Your task to perform on an android device: turn vacation reply on in the gmail app Image 0: 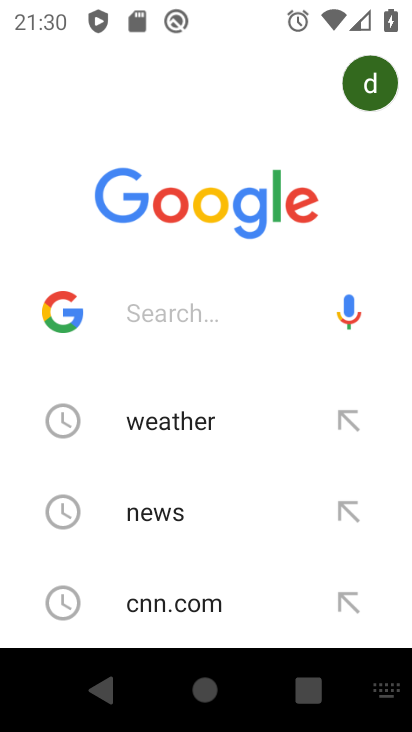
Step 0: press home button
Your task to perform on an android device: turn vacation reply on in the gmail app Image 1: 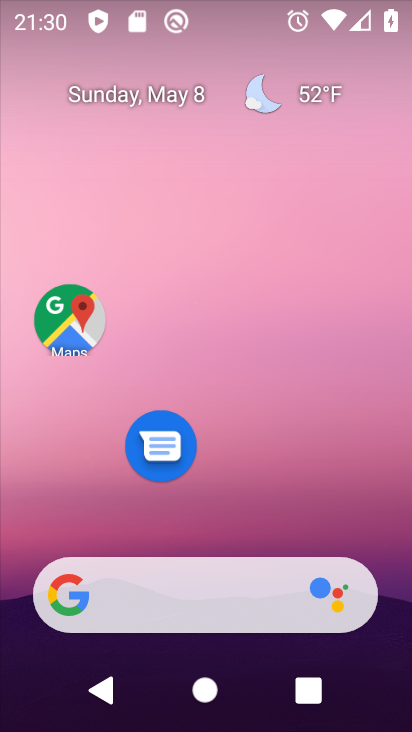
Step 1: drag from (311, 522) to (314, 127)
Your task to perform on an android device: turn vacation reply on in the gmail app Image 2: 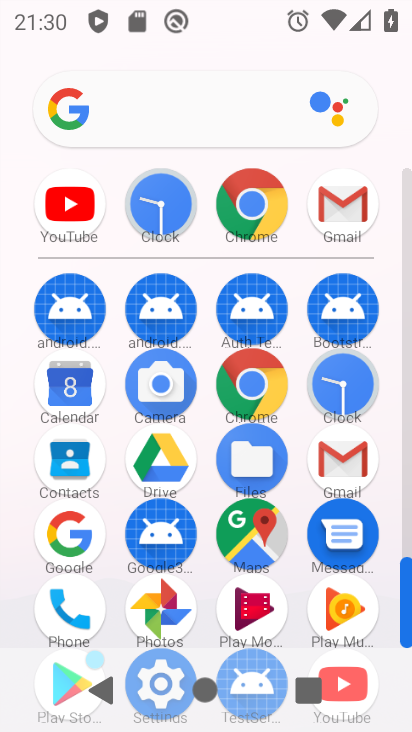
Step 2: drag from (408, 580) to (399, 722)
Your task to perform on an android device: turn vacation reply on in the gmail app Image 3: 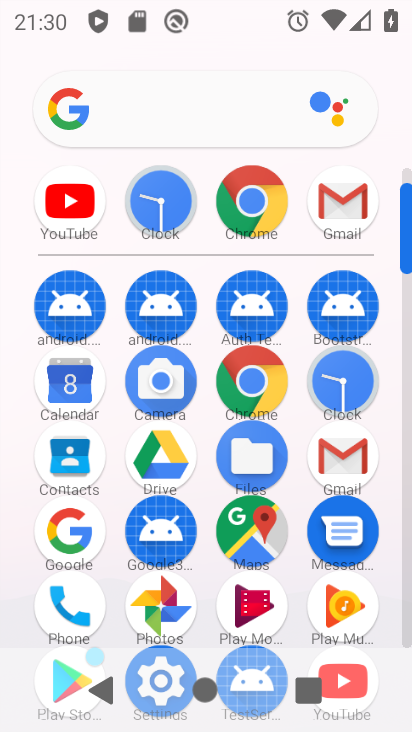
Step 3: click (408, 641)
Your task to perform on an android device: turn vacation reply on in the gmail app Image 4: 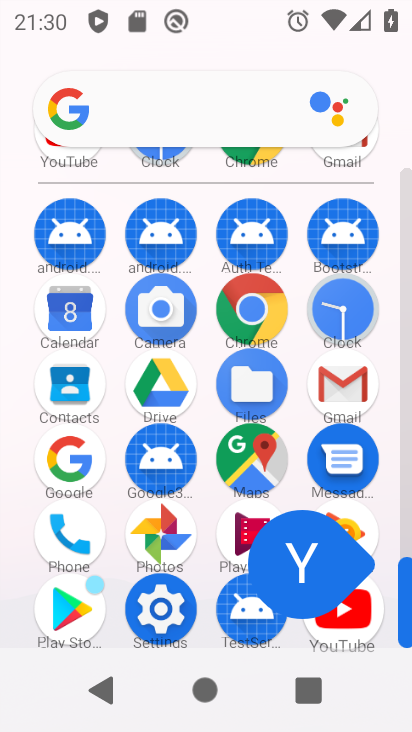
Step 4: click (408, 641)
Your task to perform on an android device: turn vacation reply on in the gmail app Image 5: 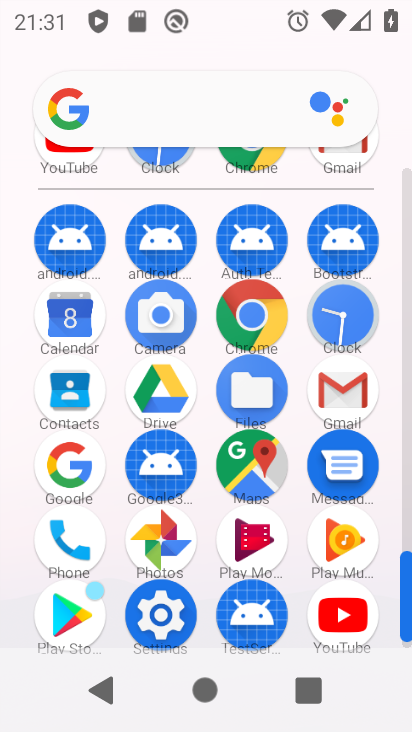
Step 5: click (327, 382)
Your task to perform on an android device: turn vacation reply on in the gmail app Image 6: 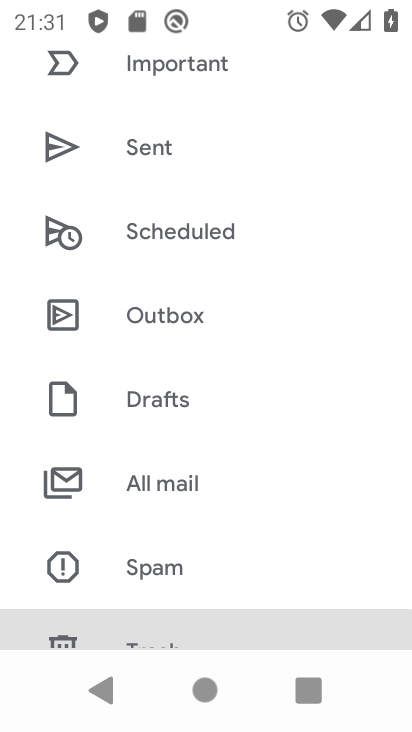
Step 6: drag from (187, 581) to (225, 171)
Your task to perform on an android device: turn vacation reply on in the gmail app Image 7: 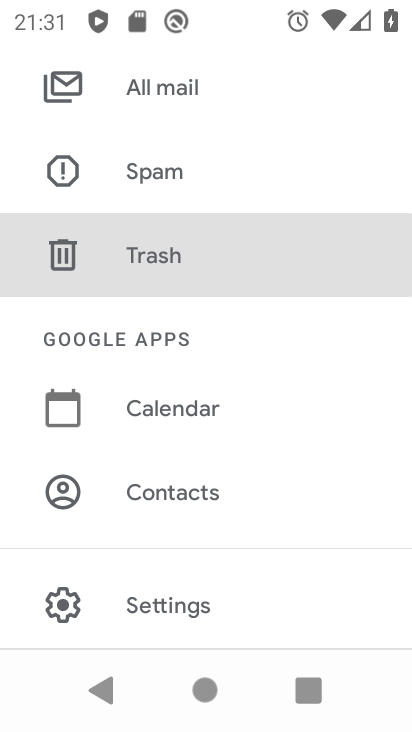
Step 7: click (214, 593)
Your task to perform on an android device: turn vacation reply on in the gmail app Image 8: 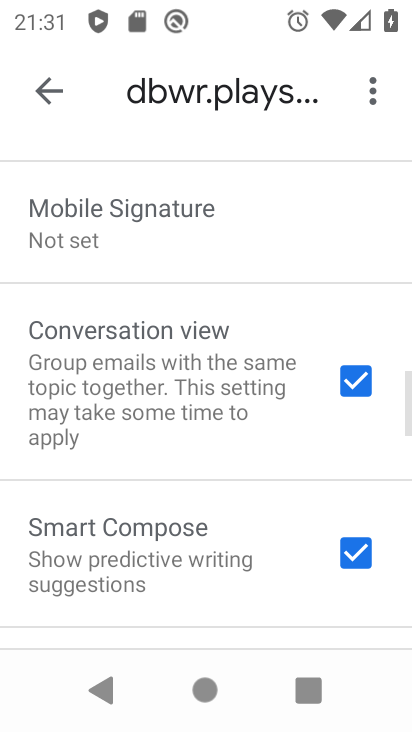
Step 8: drag from (225, 582) to (228, 217)
Your task to perform on an android device: turn vacation reply on in the gmail app Image 9: 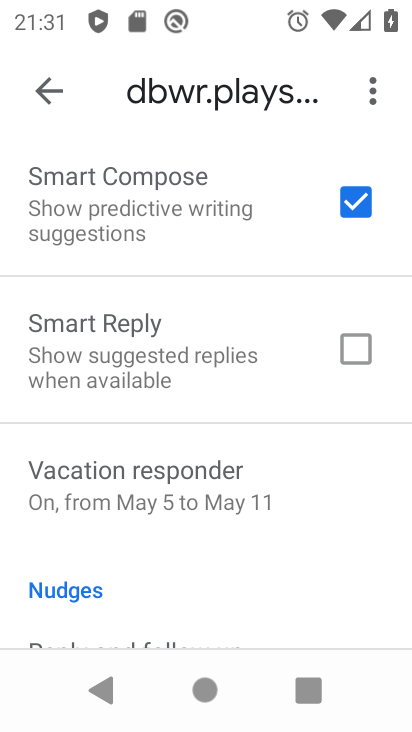
Step 9: click (182, 502)
Your task to perform on an android device: turn vacation reply on in the gmail app Image 10: 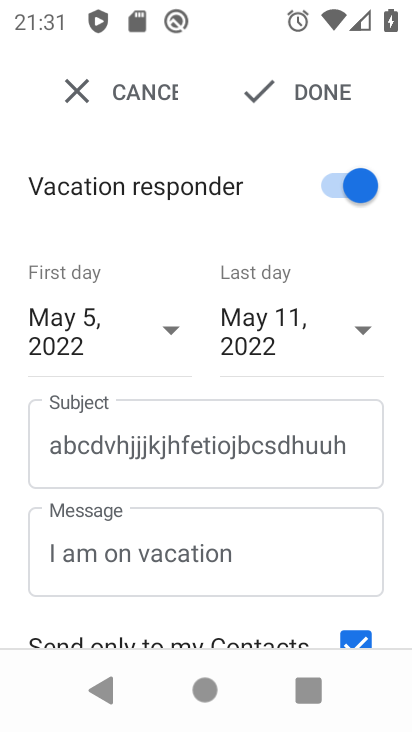
Step 10: click (160, 335)
Your task to perform on an android device: turn vacation reply on in the gmail app Image 11: 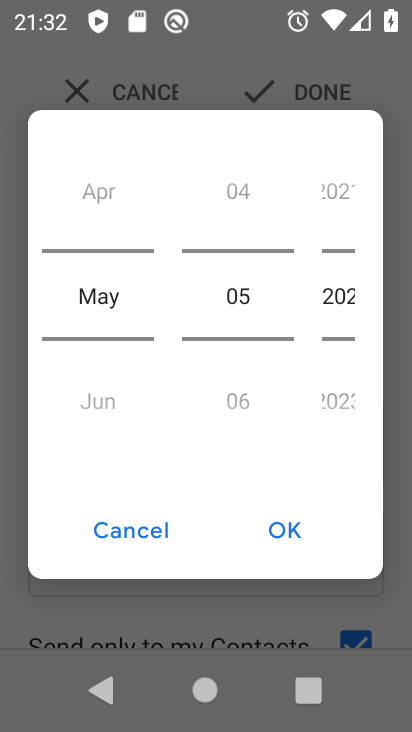
Step 11: drag from (242, 416) to (240, 8)
Your task to perform on an android device: turn vacation reply on in the gmail app Image 12: 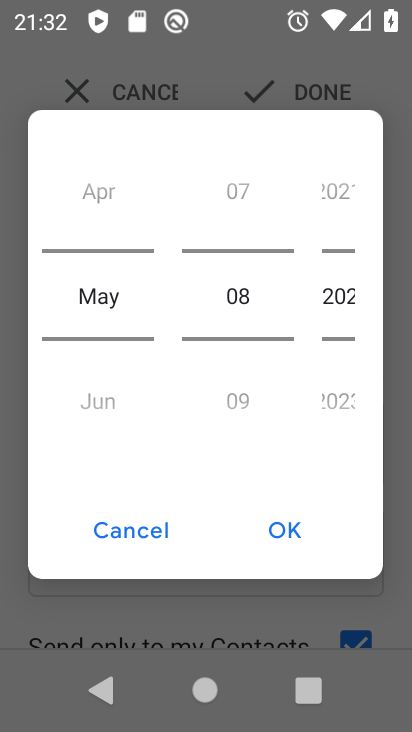
Step 12: drag from (250, 379) to (248, 246)
Your task to perform on an android device: turn vacation reply on in the gmail app Image 13: 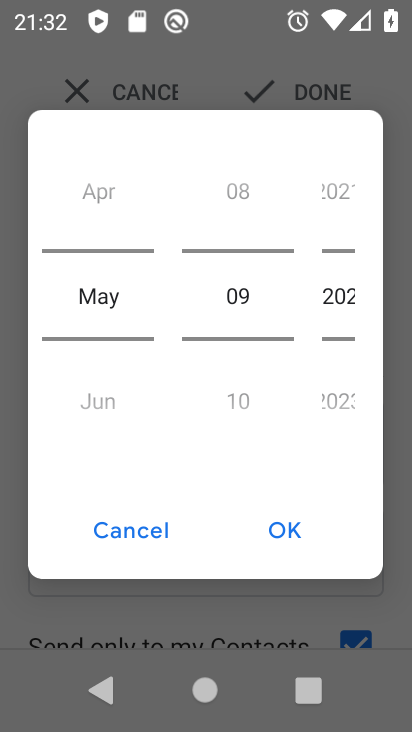
Step 13: click (300, 523)
Your task to perform on an android device: turn vacation reply on in the gmail app Image 14: 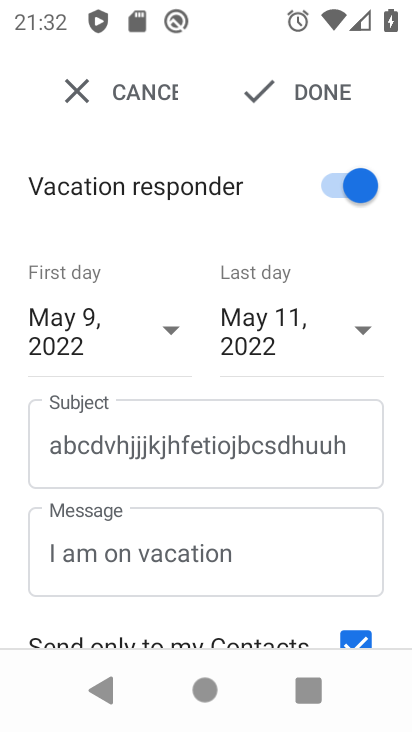
Step 14: click (287, 104)
Your task to perform on an android device: turn vacation reply on in the gmail app Image 15: 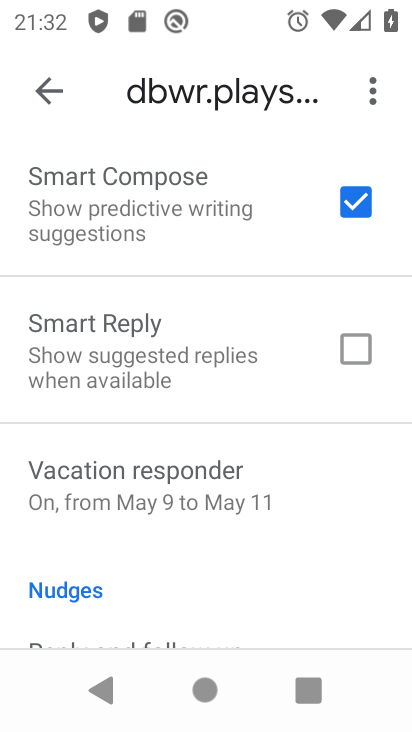
Step 15: task complete